Your task to perform on an android device: read, delete, or share a saved page in the chrome app Image 0: 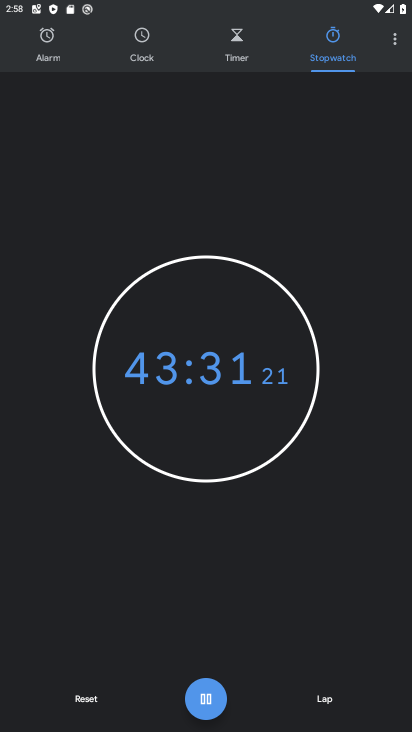
Step 0: press home button
Your task to perform on an android device: read, delete, or share a saved page in the chrome app Image 1: 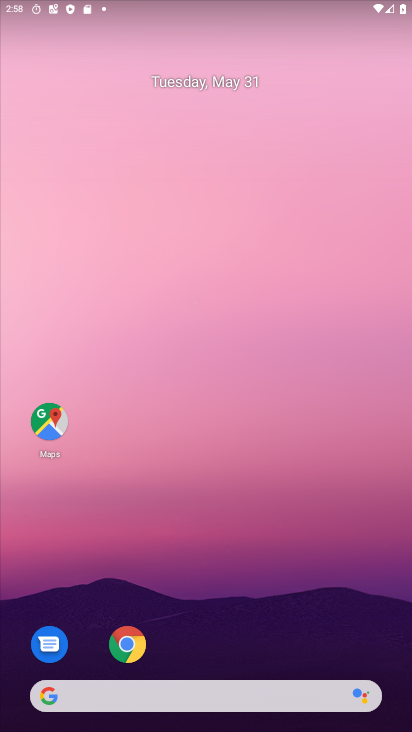
Step 1: click (126, 642)
Your task to perform on an android device: read, delete, or share a saved page in the chrome app Image 2: 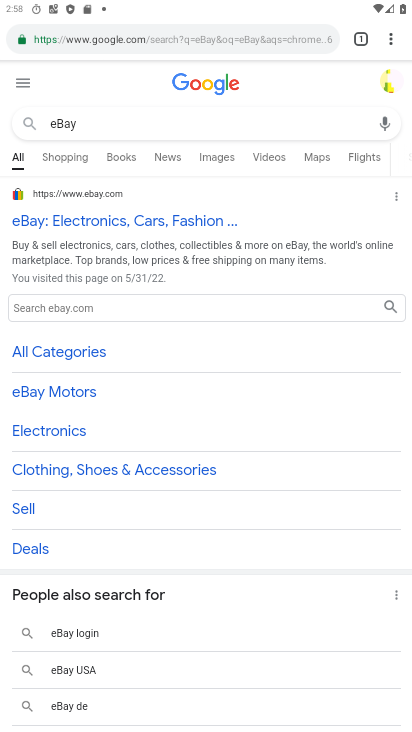
Step 2: click (388, 39)
Your task to perform on an android device: read, delete, or share a saved page in the chrome app Image 3: 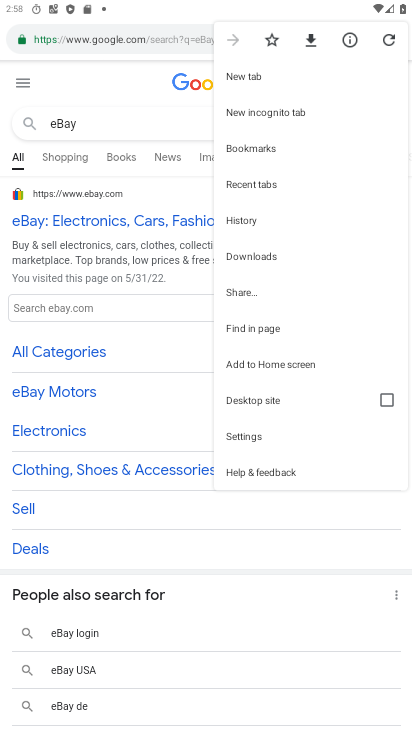
Step 3: click (243, 436)
Your task to perform on an android device: read, delete, or share a saved page in the chrome app Image 4: 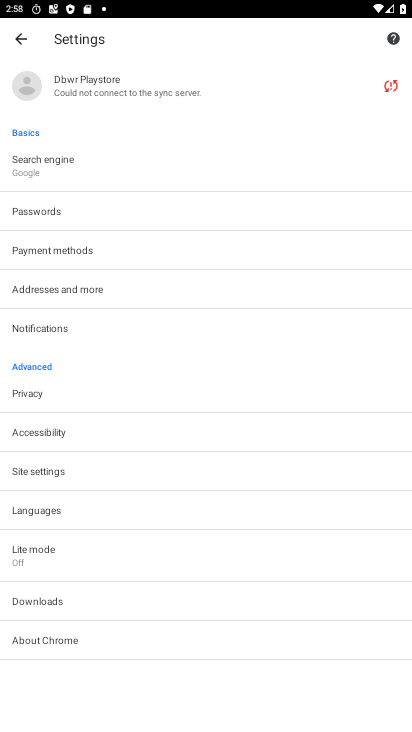
Step 4: click (17, 42)
Your task to perform on an android device: read, delete, or share a saved page in the chrome app Image 5: 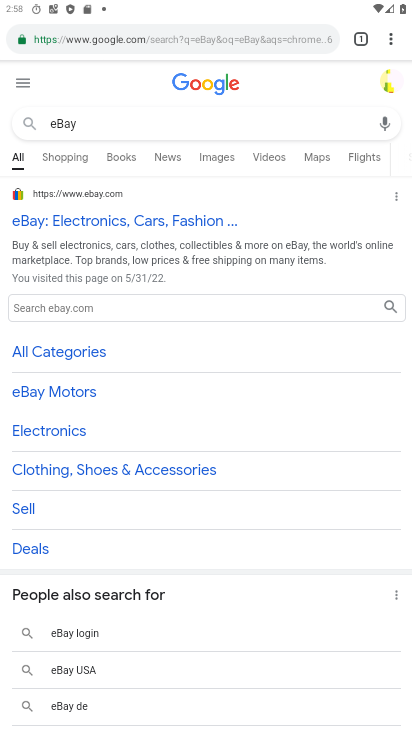
Step 5: click (384, 34)
Your task to perform on an android device: read, delete, or share a saved page in the chrome app Image 6: 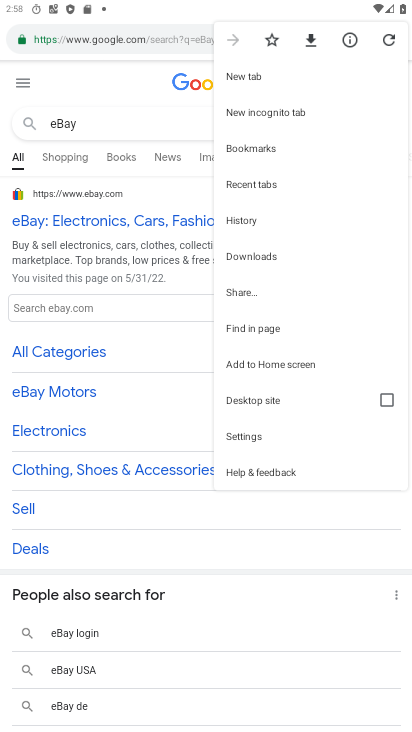
Step 6: click (248, 251)
Your task to perform on an android device: read, delete, or share a saved page in the chrome app Image 7: 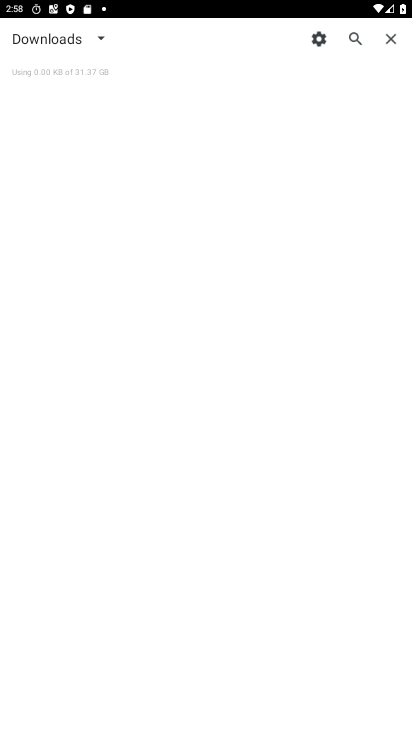
Step 7: task complete